Your task to perform on an android device: change alarm snooze length Image 0: 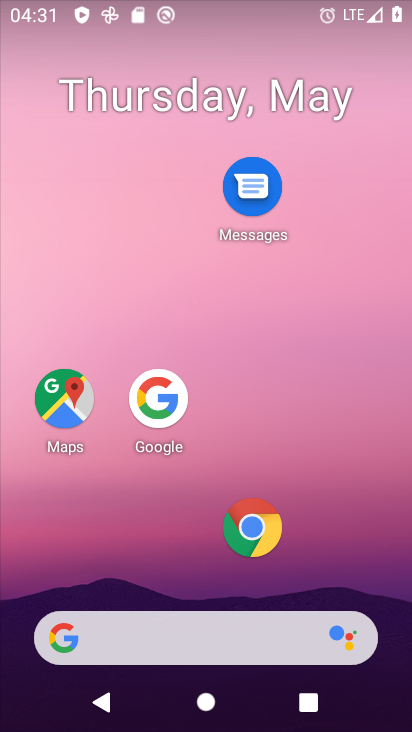
Step 0: drag from (220, 221) to (220, 85)
Your task to perform on an android device: change alarm snooze length Image 1: 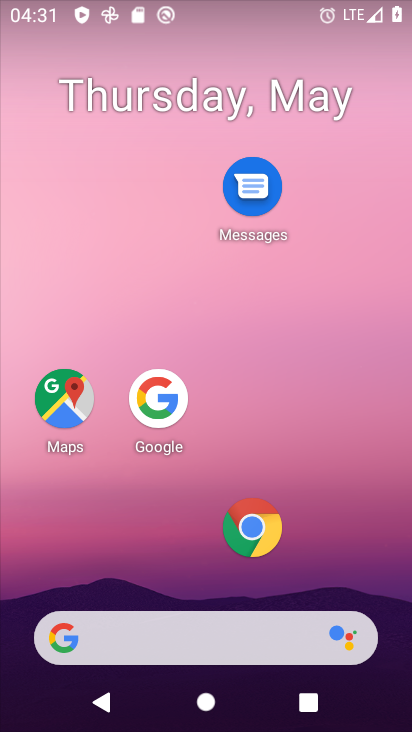
Step 1: drag from (206, 534) to (204, 194)
Your task to perform on an android device: change alarm snooze length Image 2: 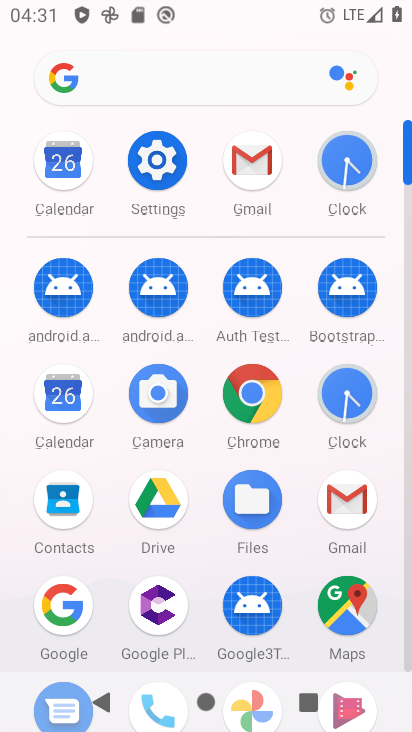
Step 2: click (351, 405)
Your task to perform on an android device: change alarm snooze length Image 3: 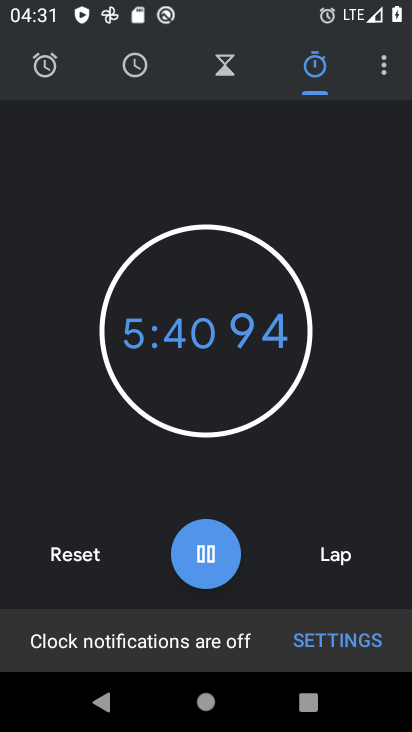
Step 3: click (385, 75)
Your task to perform on an android device: change alarm snooze length Image 4: 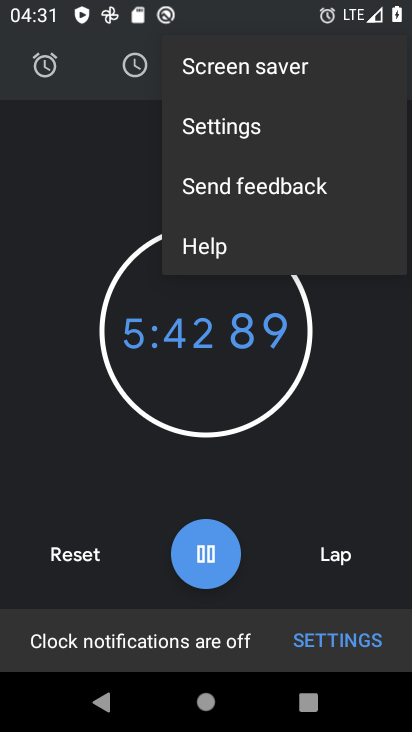
Step 4: click (234, 143)
Your task to perform on an android device: change alarm snooze length Image 5: 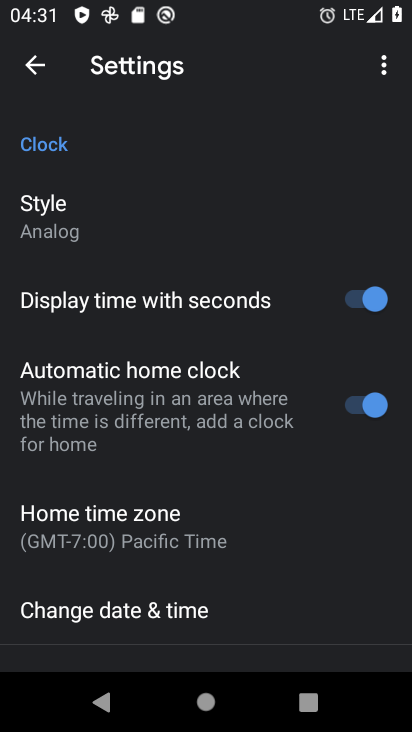
Step 5: drag from (229, 505) to (303, 89)
Your task to perform on an android device: change alarm snooze length Image 6: 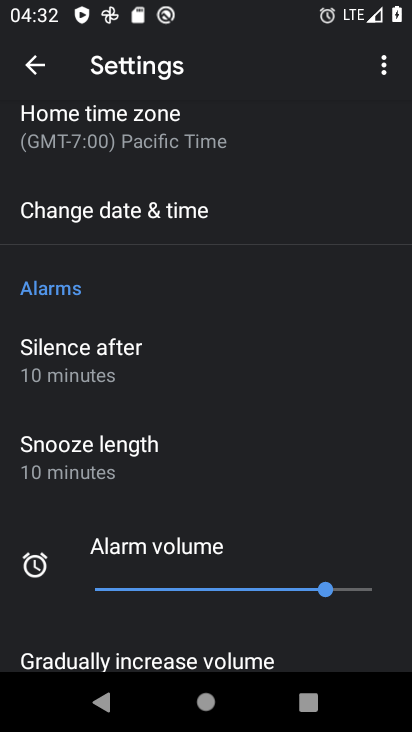
Step 6: drag from (230, 558) to (257, 410)
Your task to perform on an android device: change alarm snooze length Image 7: 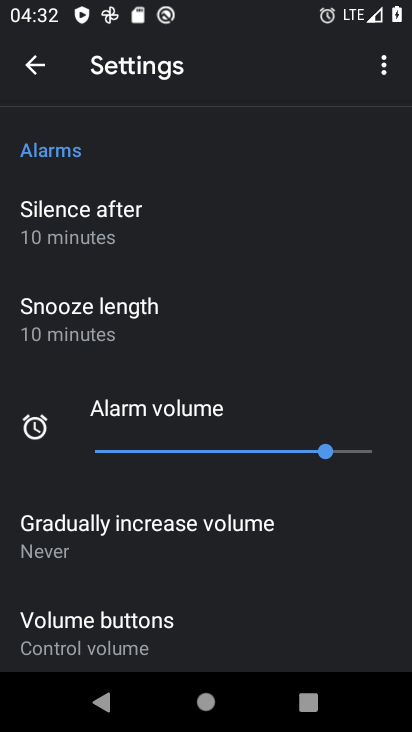
Step 7: click (106, 454)
Your task to perform on an android device: change alarm snooze length Image 8: 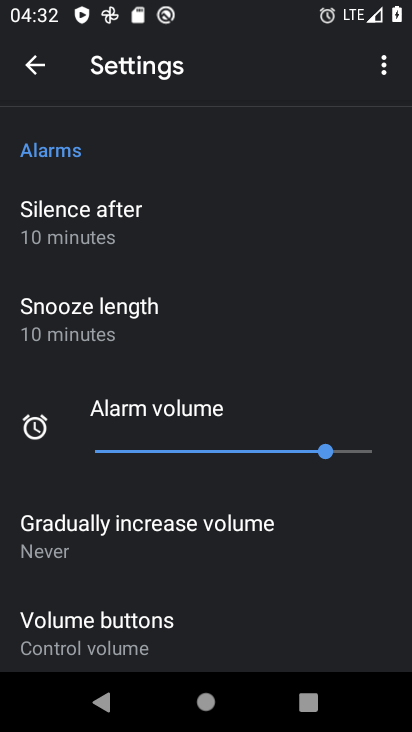
Step 8: drag from (106, 454) to (161, 588)
Your task to perform on an android device: change alarm snooze length Image 9: 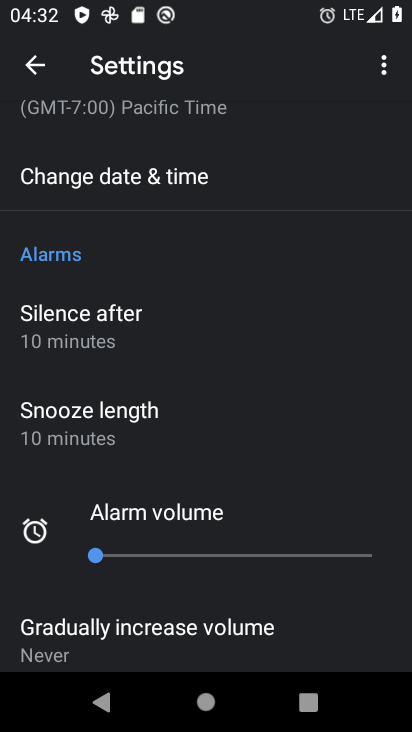
Step 9: click (103, 348)
Your task to perform on an android device: change alarm snooze length Image 10: 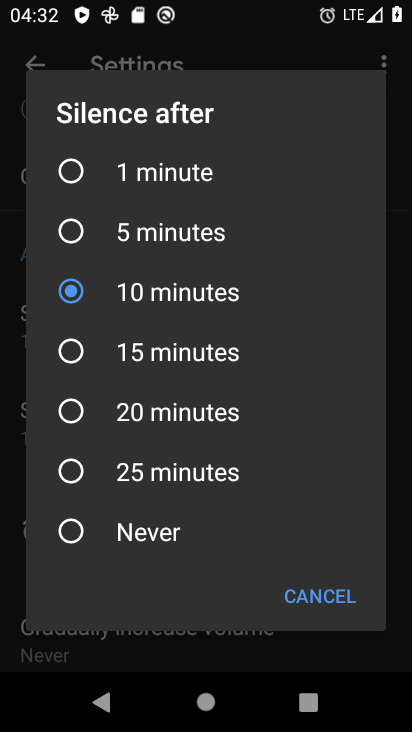
Step 10: click (316, 603)
Your task to perform on an android device: change alarm snooze length Image 11: 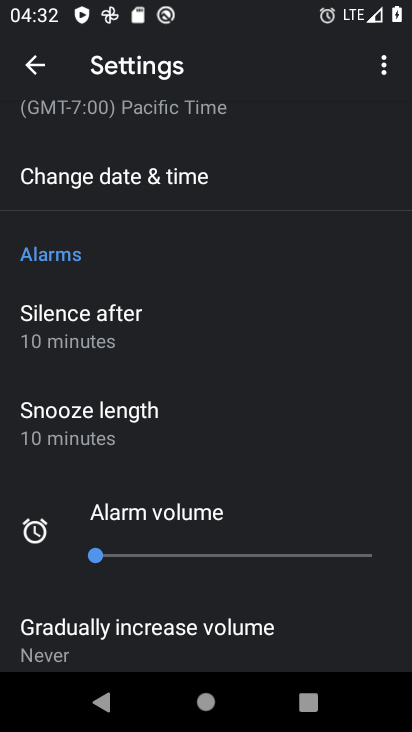
Step 11: click (188, 434)
Your task to perform on an android device: change alarm snooze length Image 12: 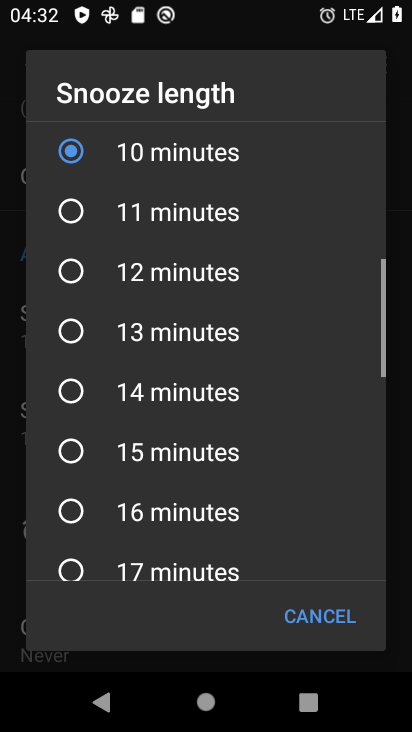
Step 12: drag from (181, 484) to (332, 31)
Your task to perform on an android device: change alarm snooze length Image 13: 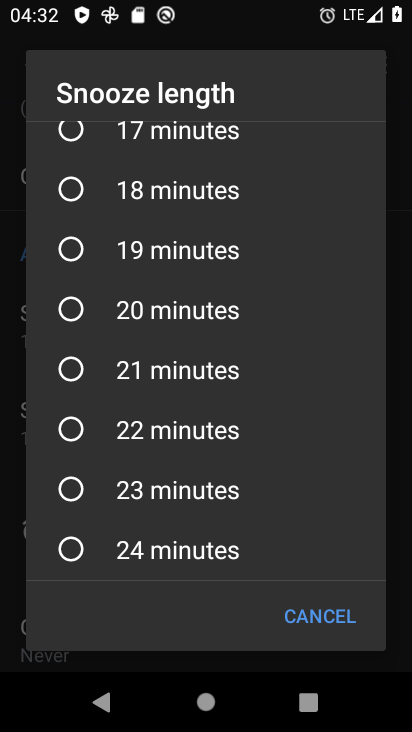
Step 13: click (145, 325)
Your task to perform on an android device: change alarm snooze length Image 14: 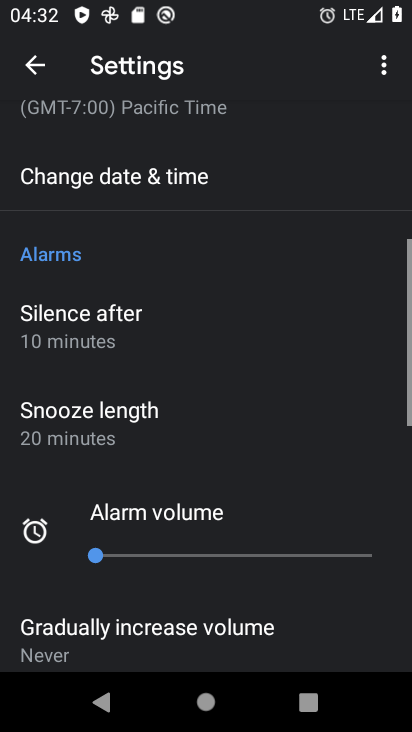
Step 14: task complete